Your task to perform on an android device: Open notification settings Image 0: 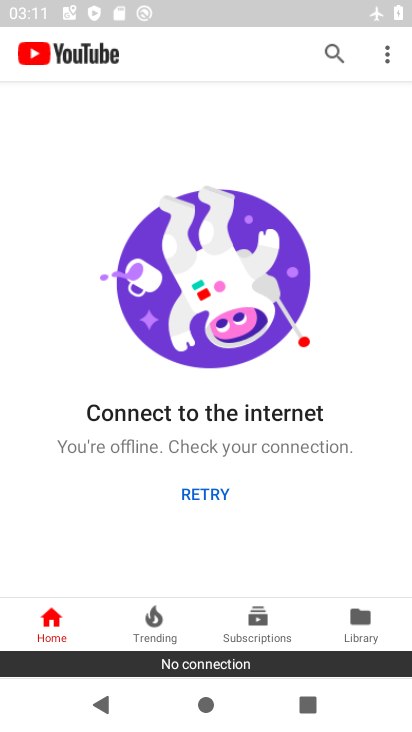
Step 0: press back button
Your task to perform on an android device: Open notification settings Image 1: 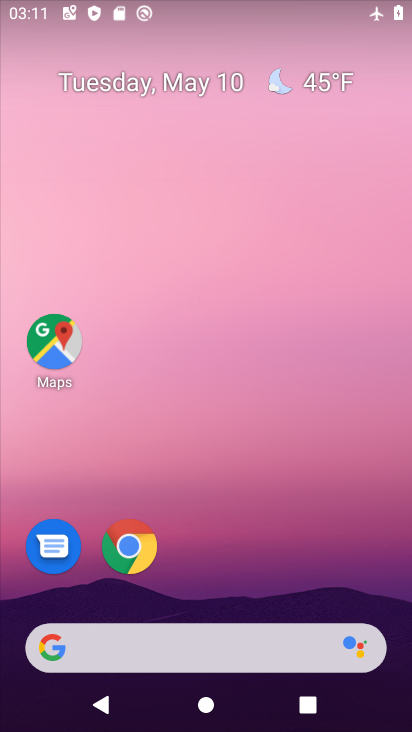
Step 1: drag from (273, 497) to (183, 22)
Your task to perform on an android device: Open notification settings Image 2: 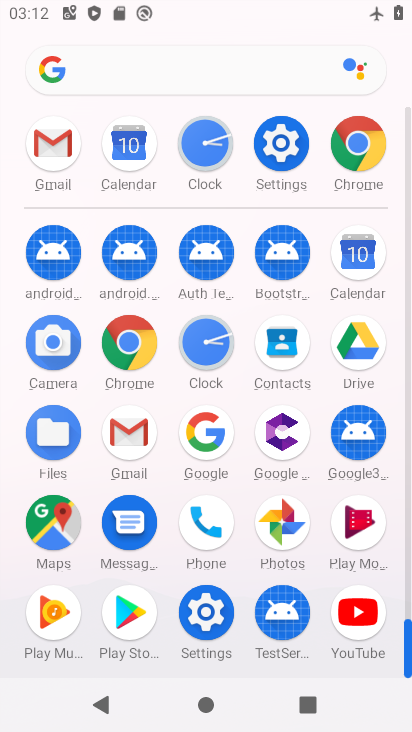
Step 2: click (204, 604)
Your task to perform on an android device: Open notification settings Image 3: 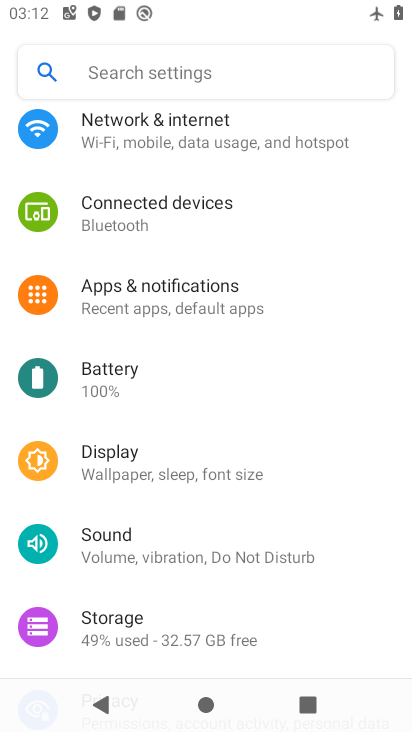
Step 3: drag from (268, 310) to (268, 543)
Your task to perform on an android device: Open notification settings Image 4: 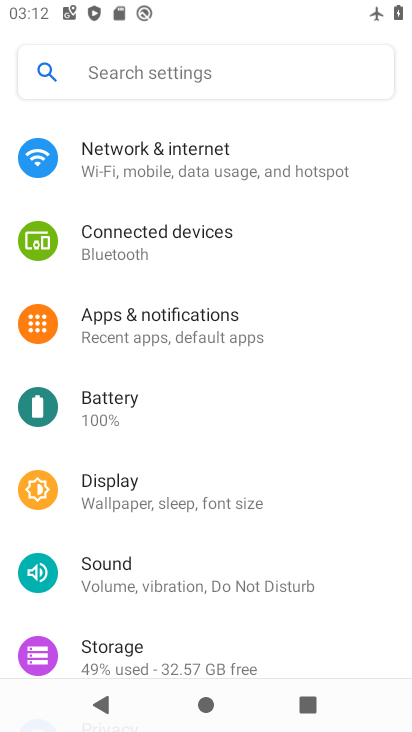
Step 4: drag from (267, 549) to (260, 240)
Your task to perform on an android device: Open notification settings Image 5: 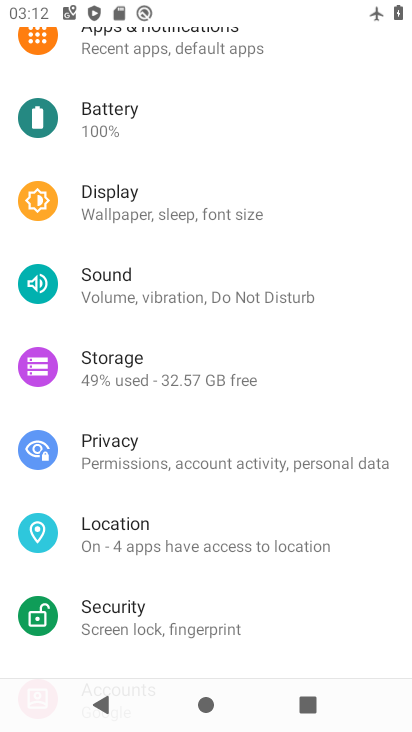
Step 5: drag from (259, 225) to (261, 545)
Your task to perform on an android device: Open notification settings Image 6: 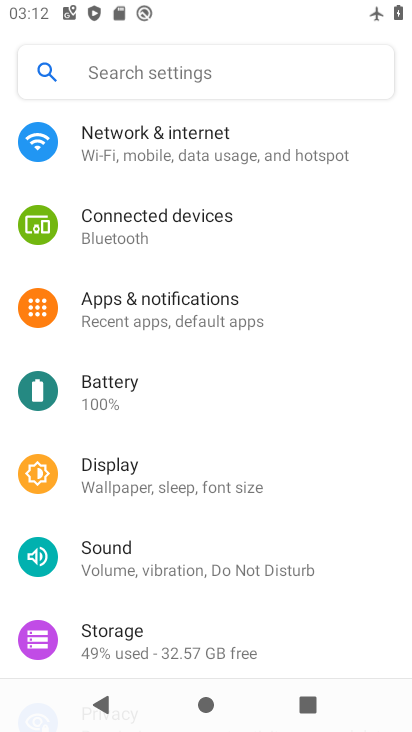
Step 6: drag from (250, 569) to (272, 205)
Your task to perform on an android device: Open notification settings Image 7: 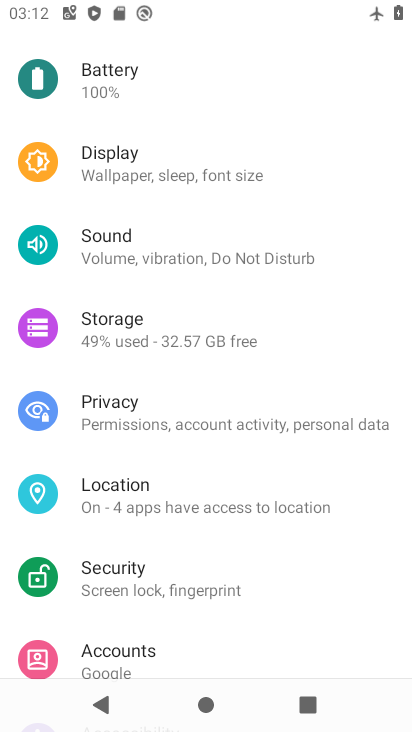
Step 7: drag from (268, 561) to (250, 173)
Your task to perform on an android device: Open notification settings Image 8: 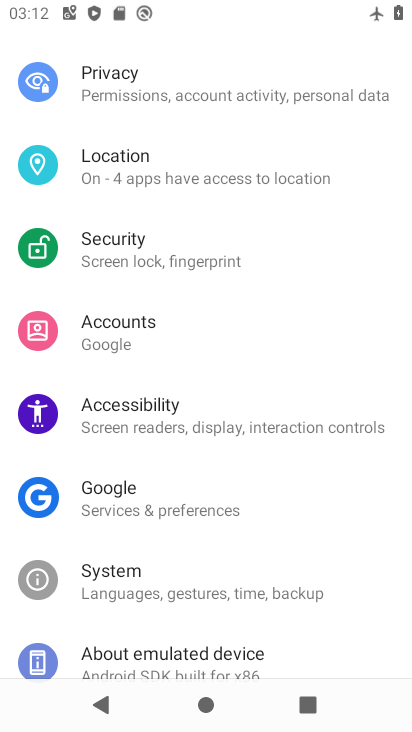
Step 8: drag from (270, 177) to (257, 542)
Your task to perform on an android device: Open notification settings Image 9: 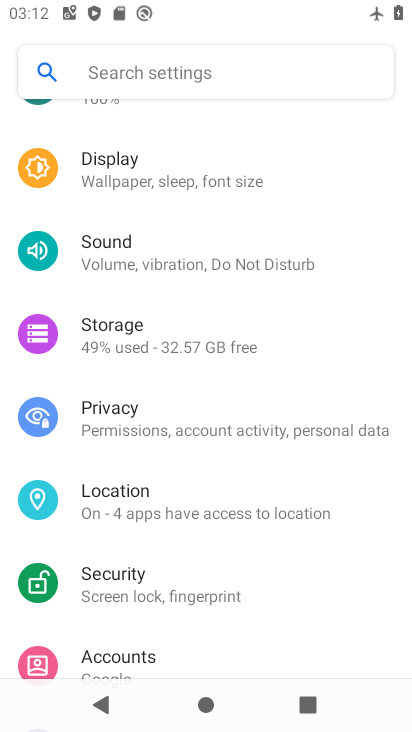
Step 9: drag from (280, 245) to (269, 609)
Your task to perform on an android device: Open notification settings Image 10: 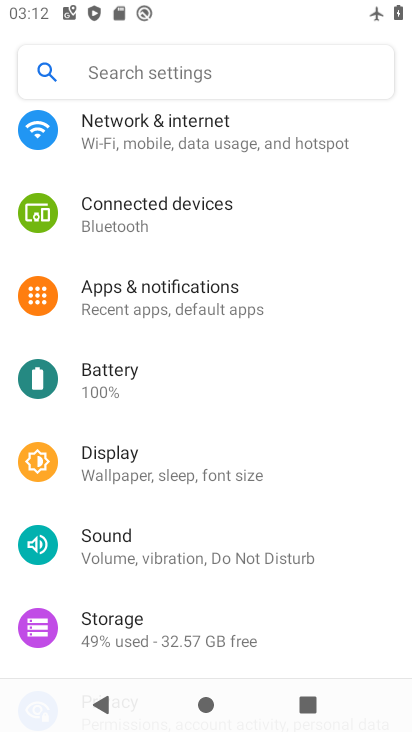
Step 10: drag from (266, 263) to (264, 526)
Your task to perform on an android device: Open notification settings Image 11: 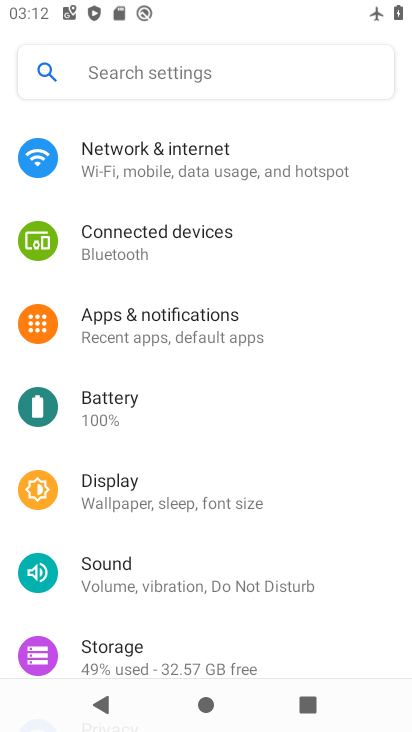
Step 11: click (198, 323)
Your task to perform on an android device: Open notification settings Image 12: 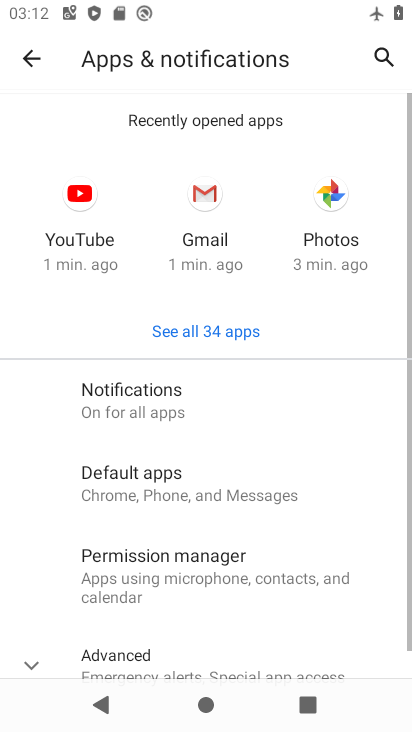
Step 12: drag from (214, 549) to (222, 212)
Your task to perform on an android device: Open notification settings Image 13: 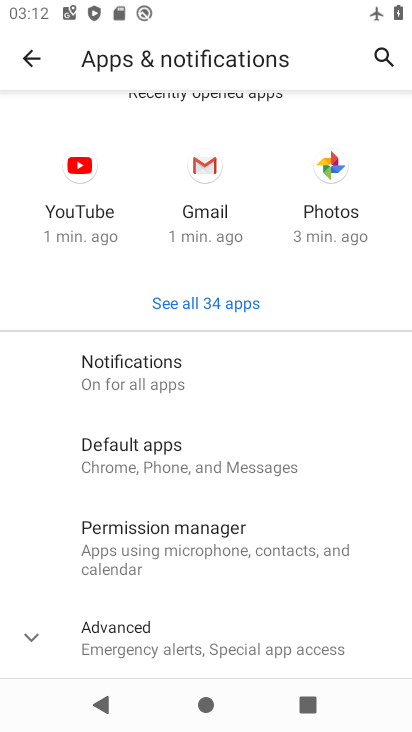
Step 13: click (19, 638)
Your task to perform on an android device: Open notification settings Image 14: 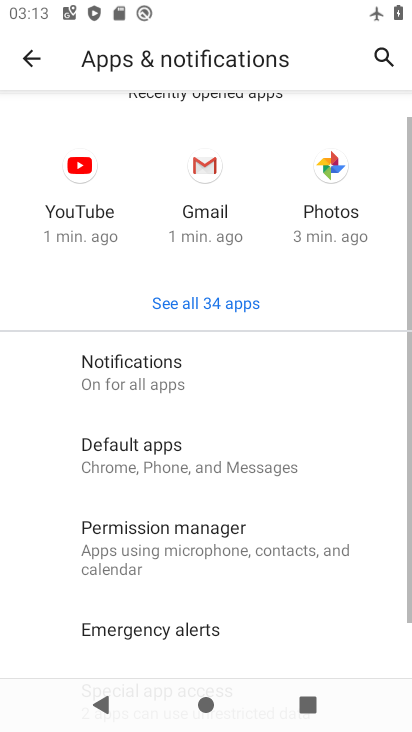
Step 14: task complete